Your task to perform on an android device: Go to privacy settings Image 0: 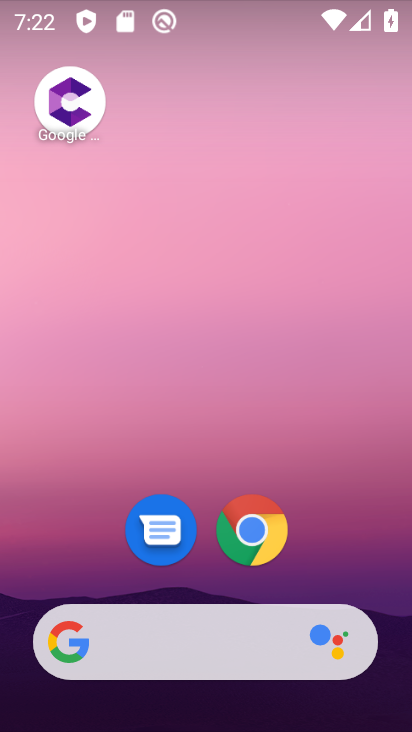
Step 0: drag from (31, 583) to (337, 124)
Your task to perform on an android device: Go to privacy settings Image 1: 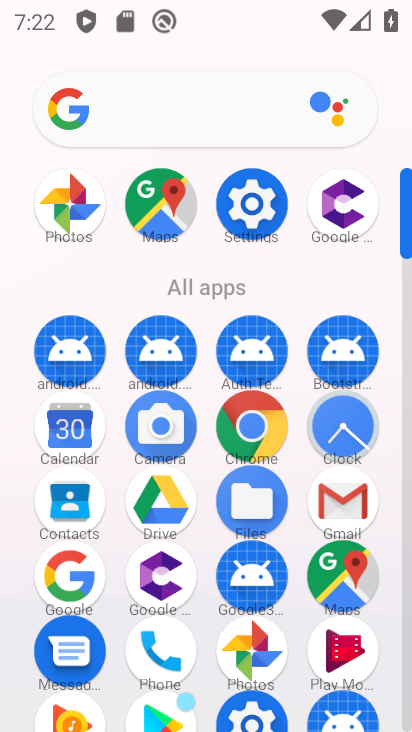
Step 1: click (271, 200)
Your task to perform on an android device: Go to privacy settings Image 2: 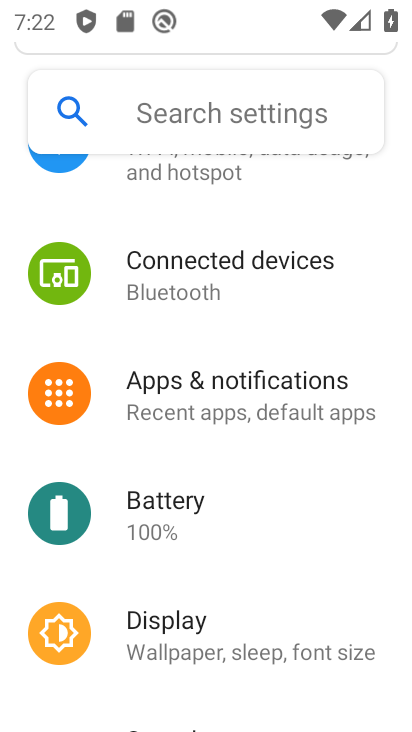
Step 2: drag from (11, 514) to (168, 150)
Your task to perform on an android device: Go to privacy settings Image 3: 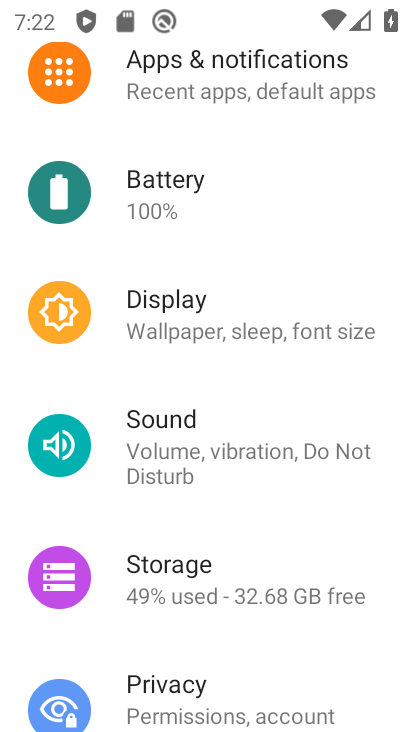
Step 3: click (161, 723)
Your task to perform on an android device: Go to privacy settings Image 4: 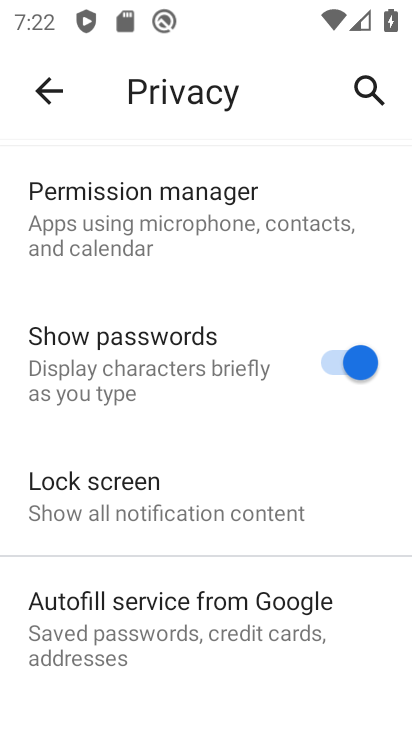
Step 4: task complete